Your task to perform on an android device: Go to eBay Image 0: 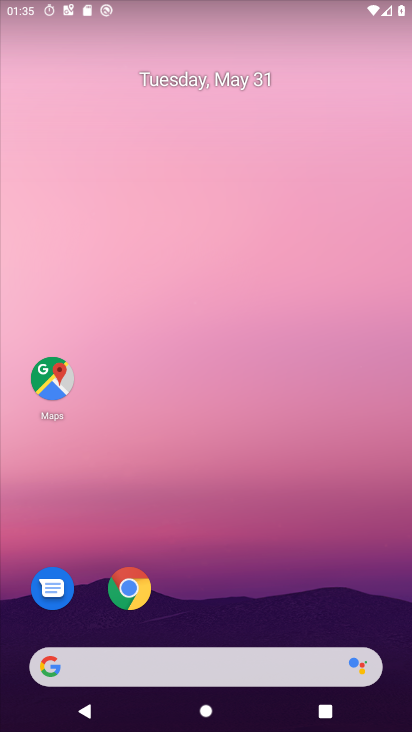
Step 0: drag from (245, 578) to (315, 109)
Your task to perform on an android device: Go to eBay Image 1: 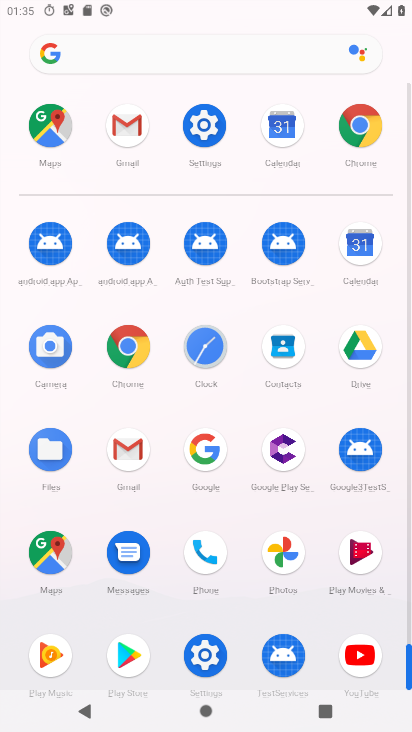
Step 1: click (145, 338)
Your task to perform on an android device: Go to eBay Image 2: 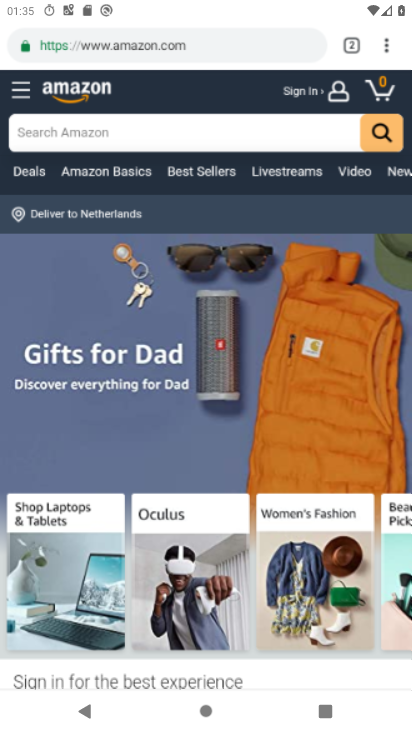
Step 2: click (256, 49)
Your task to perform on an android device: Go to eBay Image 3: 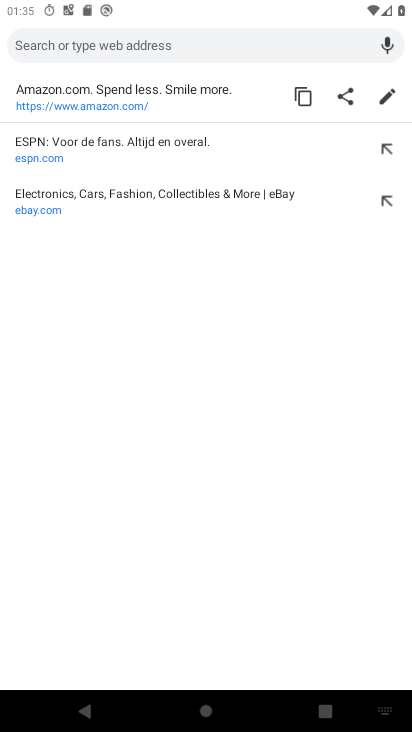
Step 3: type "ebay"
Your task to perform on an android device: Go to eBay Image 4: 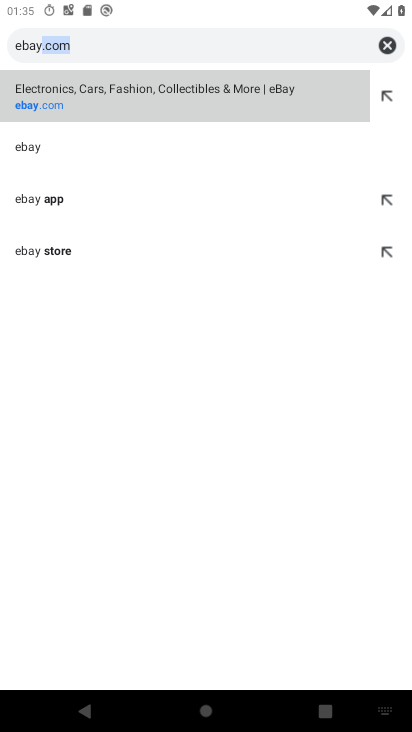
Step 4: click (160, 96)
Your task to perform on an android device: Go to eBay Image 5: 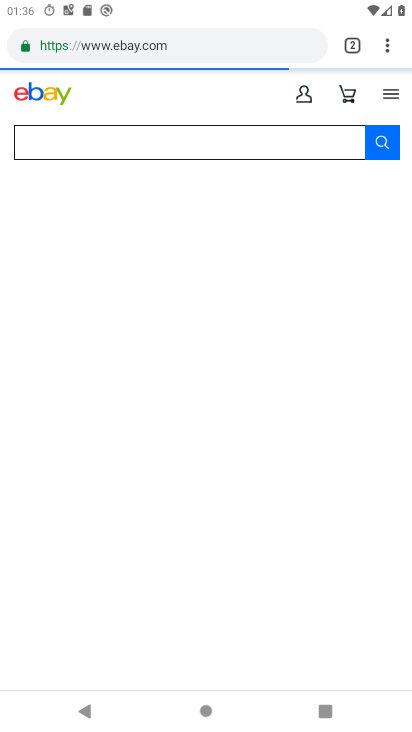
Step 5: task complete